Your task to perform on an android device: Clear the cart on amazon.com. Add lg ultragear to the cart on amazon.com Image 0: 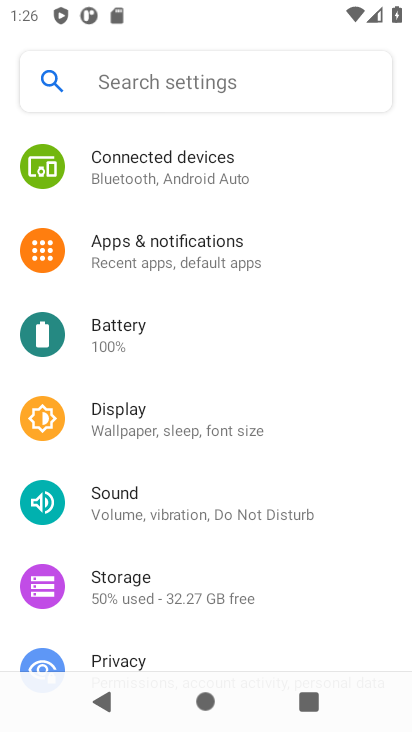
Step 0: press home button
Your task to perform on an android device: Clear the cart on amazon.com. Add lg ultragear to the cart on amazon.com Image 1: 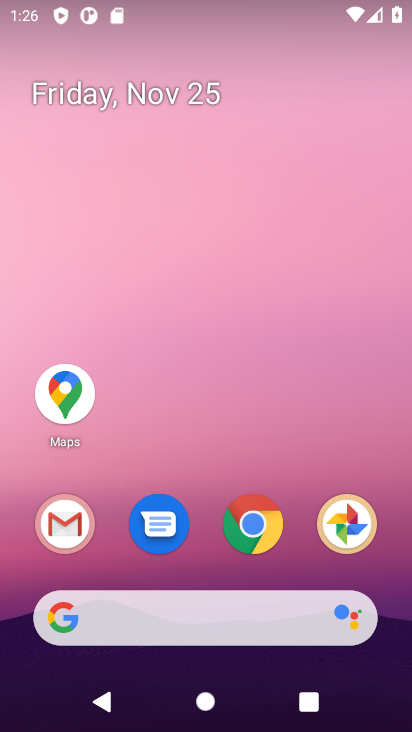
Step 1: click (254, 529)
Your task to perform on an android device: Clear the cart on amazon.com. Add lg ultragear to the cart on amazon.com Image 2: 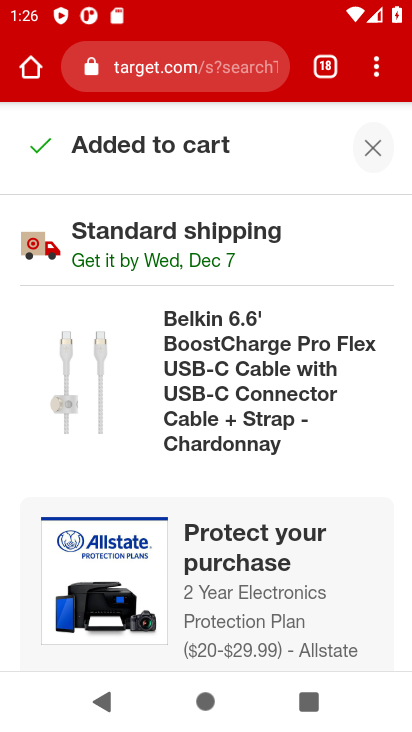
Step 2: click (155, 62)
Your task to perform on an android device: Clear the cart on amazon.com. Add lg ultragear to the cart on amazon.com Image 3: 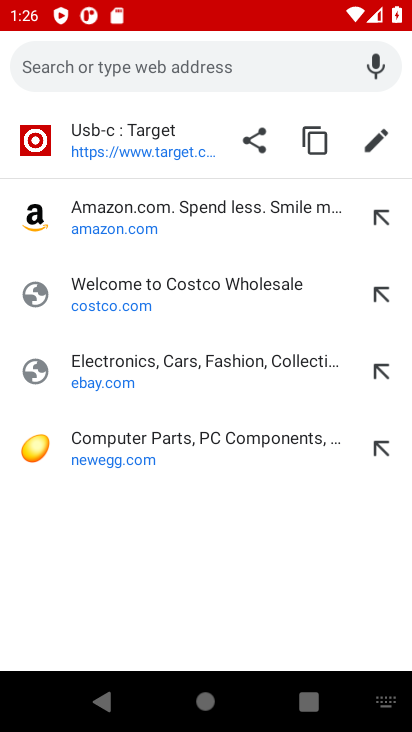
Step 3: click (112, 214)
Your task to perform on an android device: Clear the cart on amazon.com. Add lg ultragear to the cart on amazon.com Image 4: 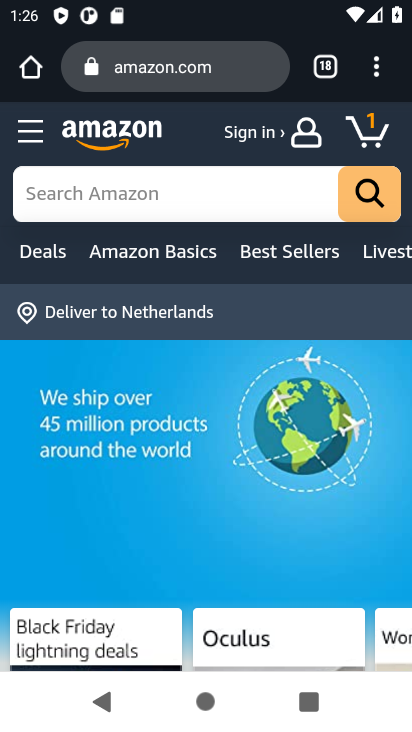
Step 4: click (363, 133)
Your task to perform on an android device: Clear the cart on amazon.com. Add lg ultragear to the cart on amazon.com Image 5: 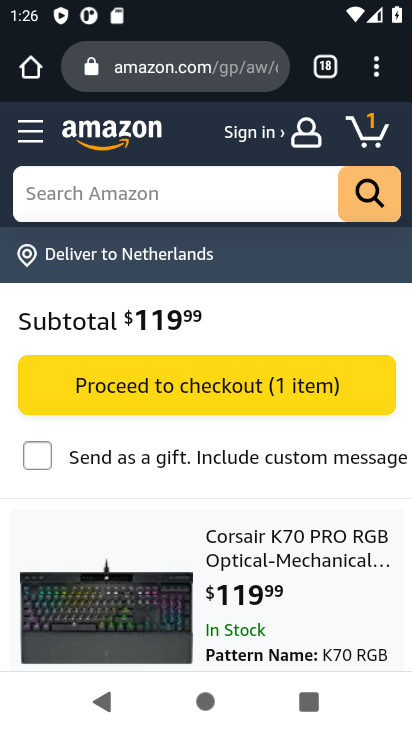
Step 5: drag from (231, 481) to (250, 135)
Your task to perform on an android device: Clear the cart on amazon.com. Add lg ultragear to the cart on amazon.com Image 6: 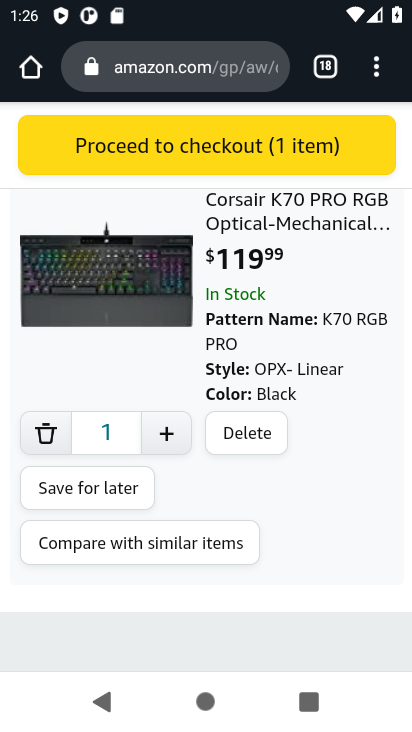
Step 6: click (242, 436)
Your task to perform on an android device: Clear the cart on amazon.com. Add lg ultragear to the cart on amazon.com Image 7: 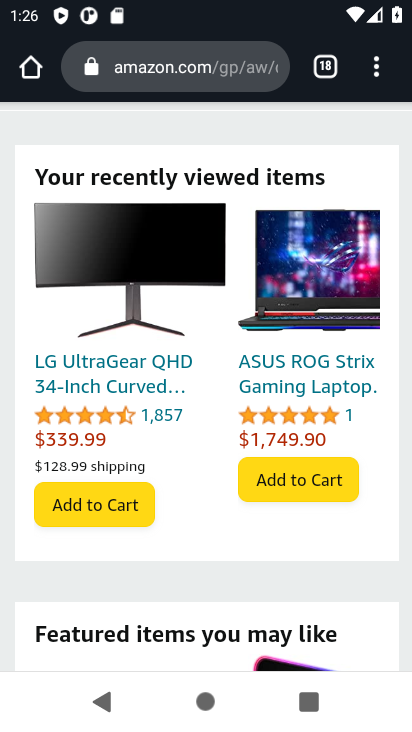
Step 7: drag from (220, 296) to (219, 474)
Your task to perform on an android device: Clear the cart on amazon.com. Add lg ultragear to the cart on amazon.com Image 8: 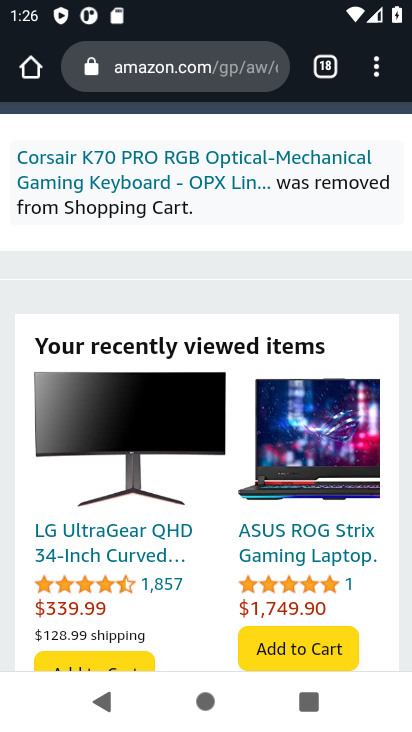
Step 8: drag from (193, 222) to (194, 424)
Your task to perform on an android device: Clear the cart on amazon.com. Add lg ultragear to the cart on amazon.com Image 9: 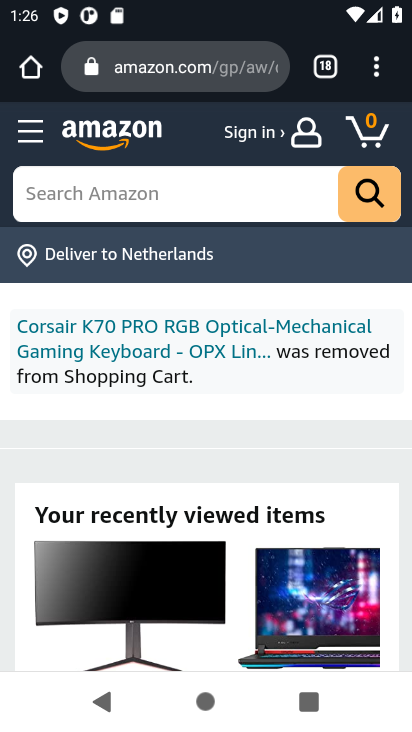
Step 9: click (88, 192)
Your task to perform on an android device: Clear the cart on amazon.com. Add lg ultragear to the cart on amazon.com Image 10: 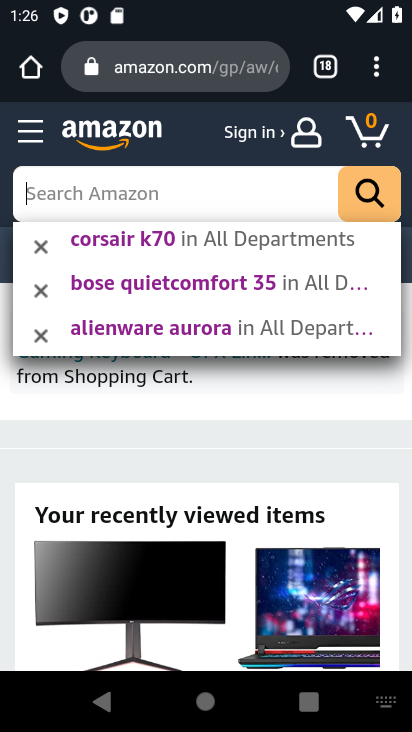
Step 10: type "lg ultragear"
Your task to perform on an android device: Clear the cart on amazon.com. Add lg ultragear to the cart on amazon.com Image 11: 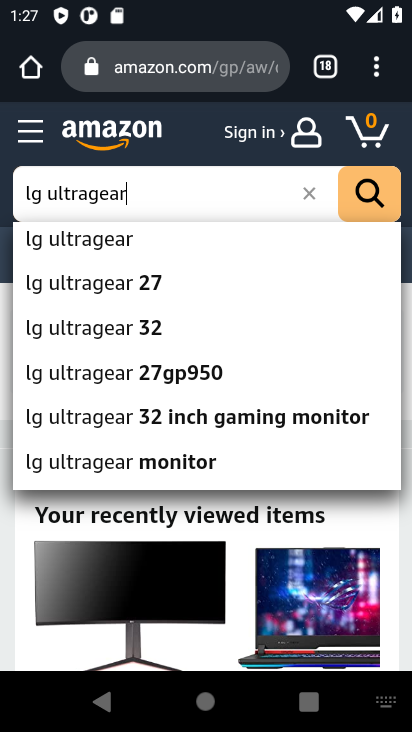
Step 11: click (85, 246)
Your task to perform on an android device: Clear the cart on amazon.com. Add lg ultragear to the cart on amazon.com Image 12: 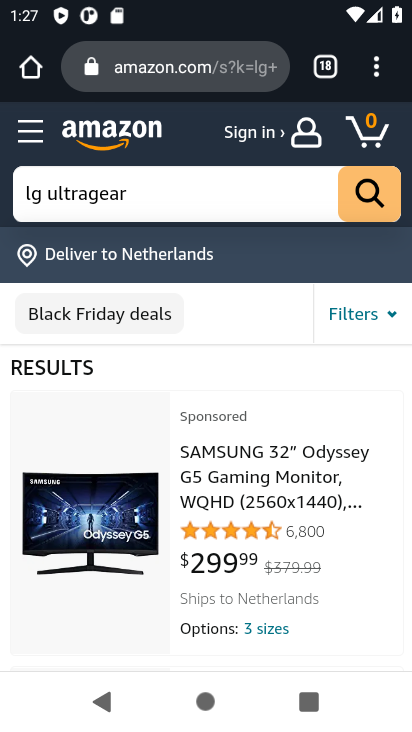
Step 12: drag from (154, 426) to (148, 253)
Your task to perform on an android device: Clear the cart on amazon.com. Add lg ultragear to the cart on amazon.com Image 13: 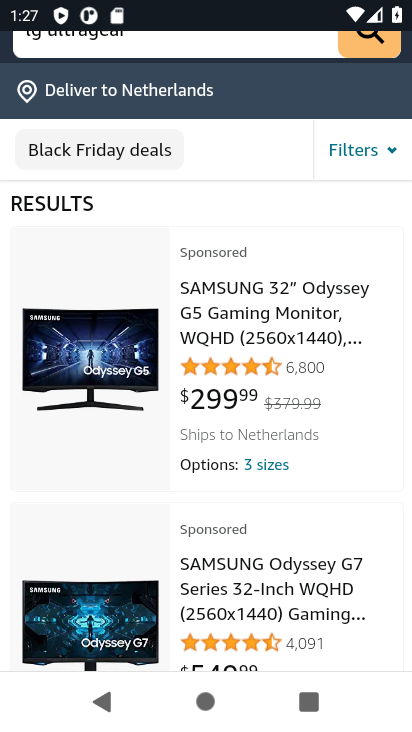
Step 13: drag from (127, 511) to (127, 286)
Your task to perform on an android device: Clear the cart on amazon.com. Add lg ultragear to the cart on amazon.com Image 14: 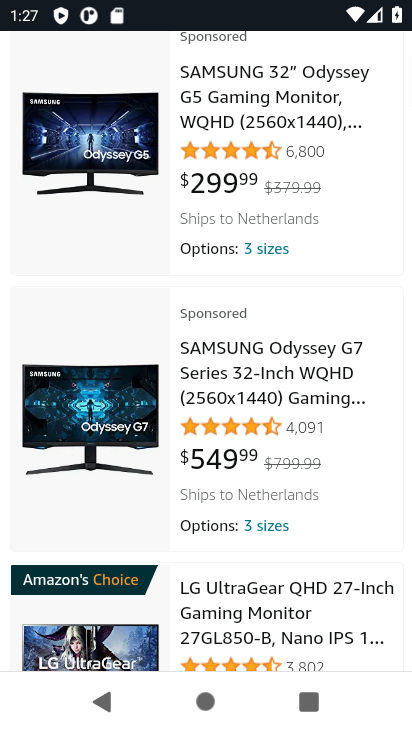
Step 14: drag from (121, 556) to (136, 383)
Your task to perform on an android device: Clear the cart on amazon.com. Add lg ultragear to the cart on amazon.com Image 15: 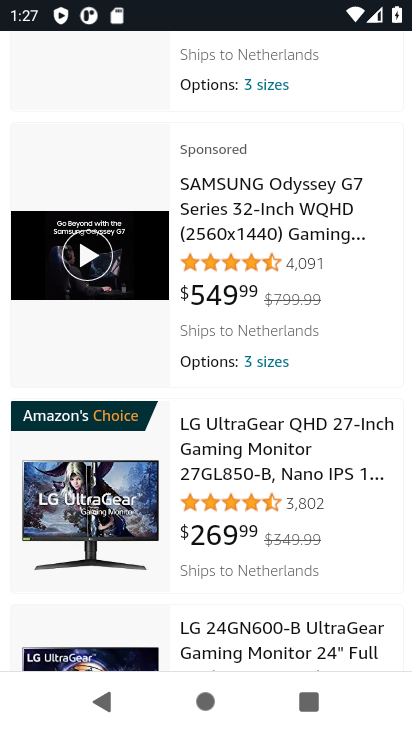
Step 15: click (237, 468)
Your task to perform on an android device: Clear the cart on amazon.com. Add lg ultragear to the cart on amazon.com Image 16: 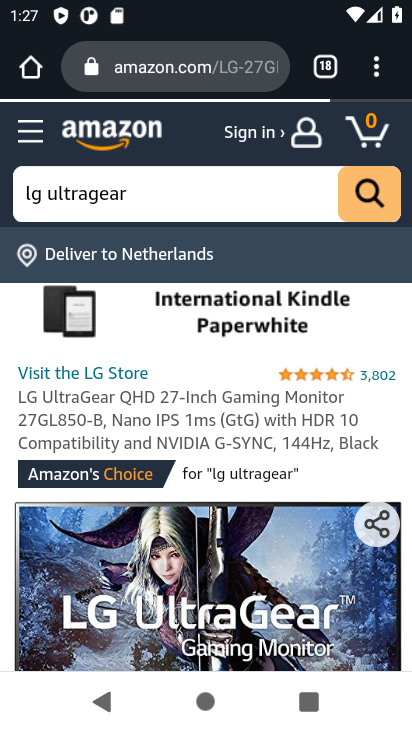
Step 16: drag from (208, 538) to (208, 226)
Your task to perform on an android device: Clear the cart on amazon.com. Add lg ultragear to the cart on amazon.com Image 17: 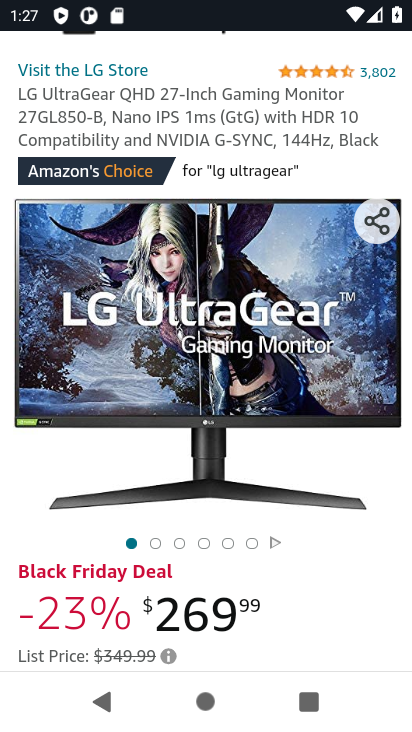
Step 17: drag from (189, 485) to (192, 157)
Your task to perform on an android device: Clear the cart on amazon.com. Add lg ultragear to the cart on amazon.com Image 18: 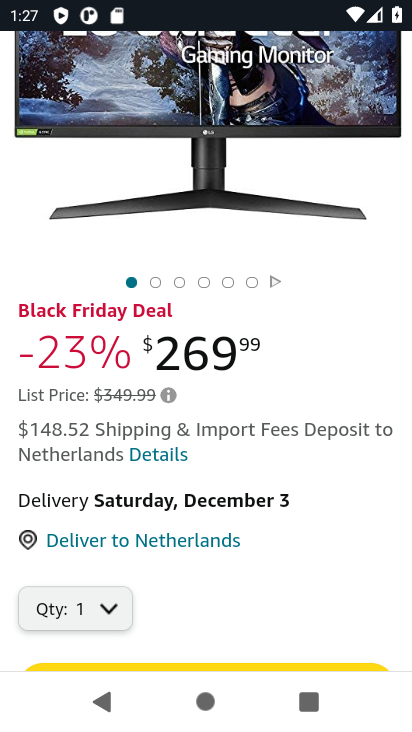
Step 18: drag from (183, 511) to (189, 234)
Your task to perform on an android device: Clear the cart on amazon.com. Add lg ultragear to the cart on amazon.com Image 19: 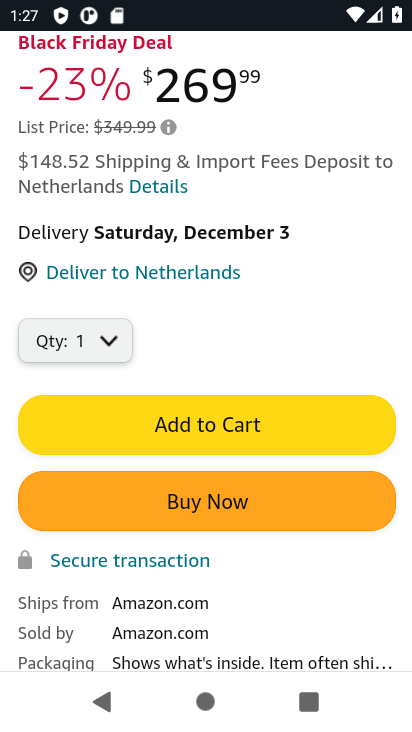
Step 19: click (186, 423)
Your task to perform on an android device: Clear the cart on amazon.com. Add lg ultragear to the cart on amazon.com Image 20: 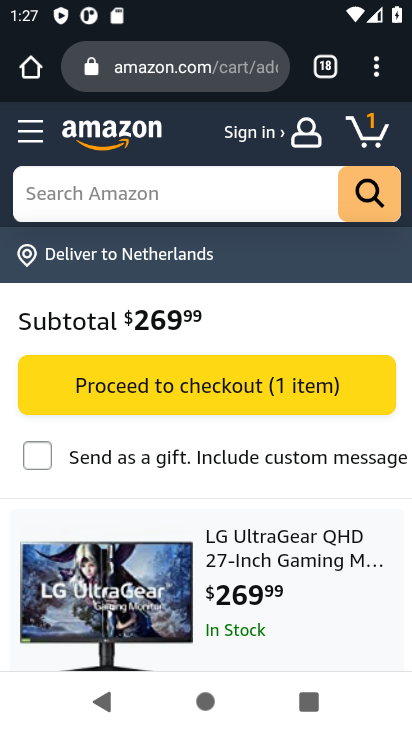
Step 20: task complete